Your task to perform on an android device: Open my contact list Image 0: 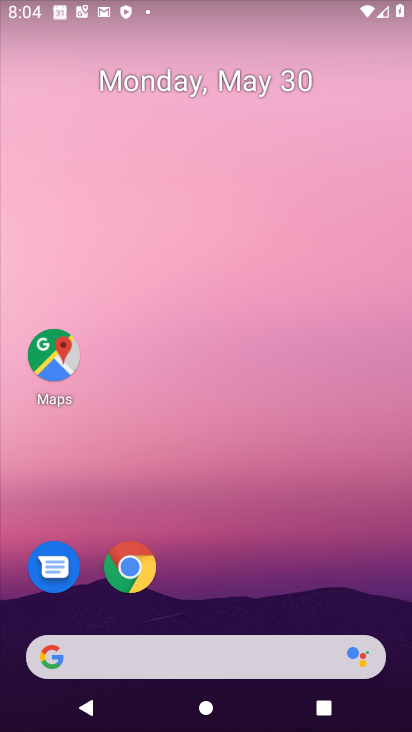
Step 0: drag from (303, 614) to (280, 10)
Your task to perform on an android device: Open my contact list Image 1: 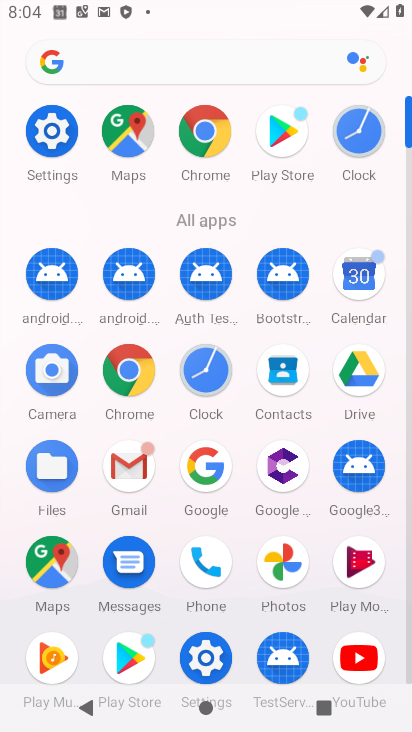
Step 1: click (277, 378)
Your task to perform on an android device: Open my contact list Image 2: 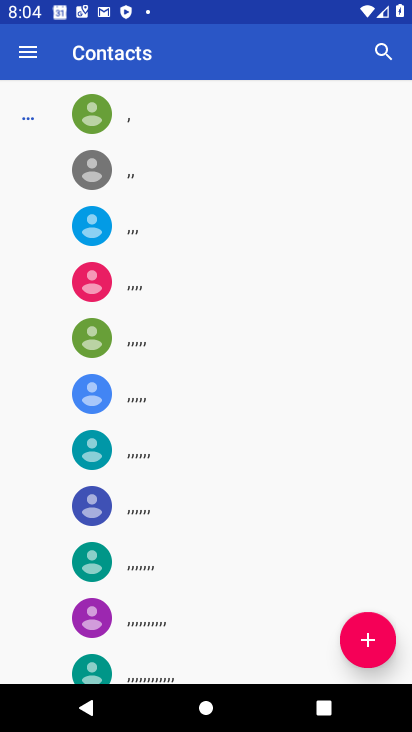
Step 2: task complete